Your task to perform on an android device: toggle notifications settings in the gmail app Image 0: 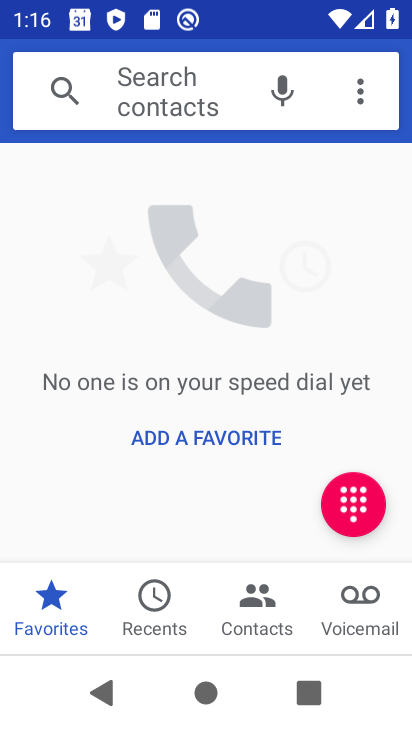
Step 0: press back button
Your task to perform on an android device: toggle notifications settings in the gmail app Image 1: 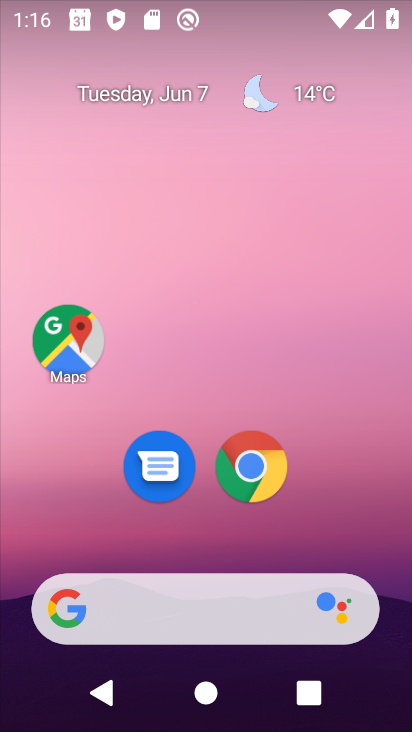
Step 1: drag from (236, 555) to (299, 0)
Your task to perform on an android device: toggle notifications settings in the gmail app Image 2: 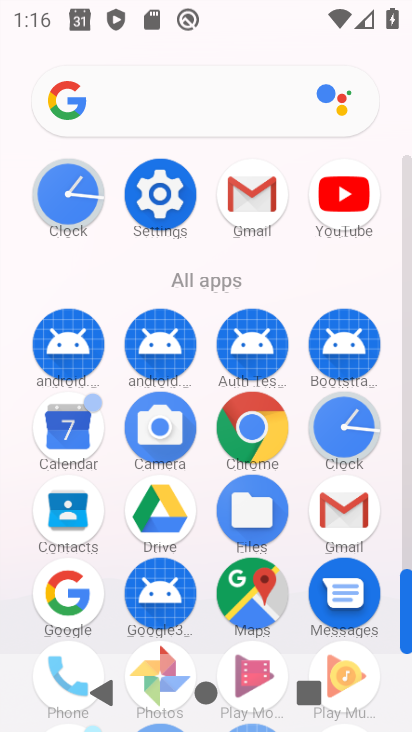
Step 2: click (247, 198)
Your task to perform on an android device: toggle notifications settings in the gmail app Image 3: 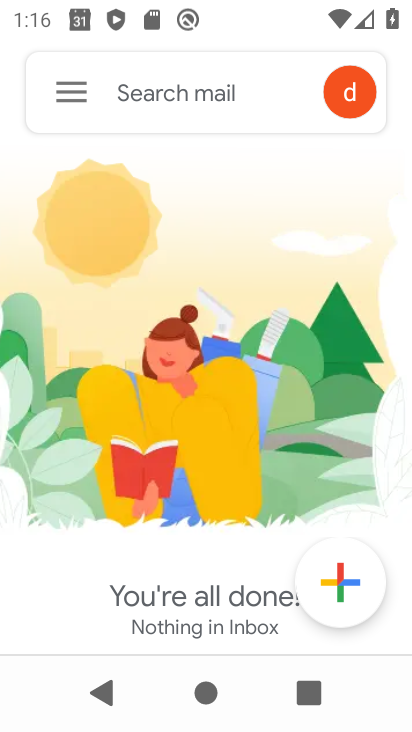
Step 3: click (67, 87)
Your task to perform on an android device: toggle notifications settings in the gmail app Image 4: 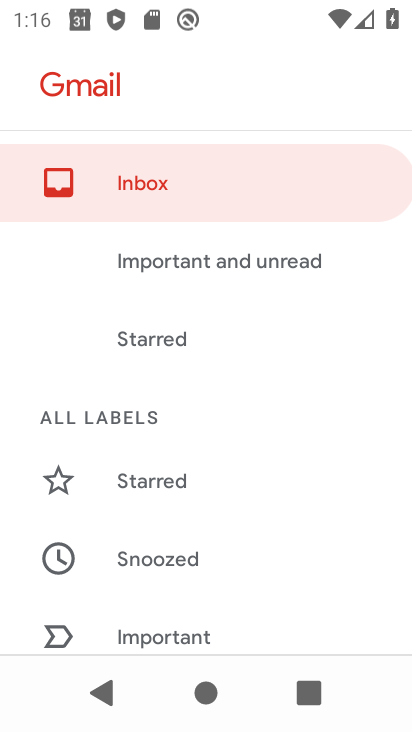
Step 4: drag from (225, 377) to (266, 82)
Your task to perform on an android device: toggle notifications settings in the gmail app Image 5: 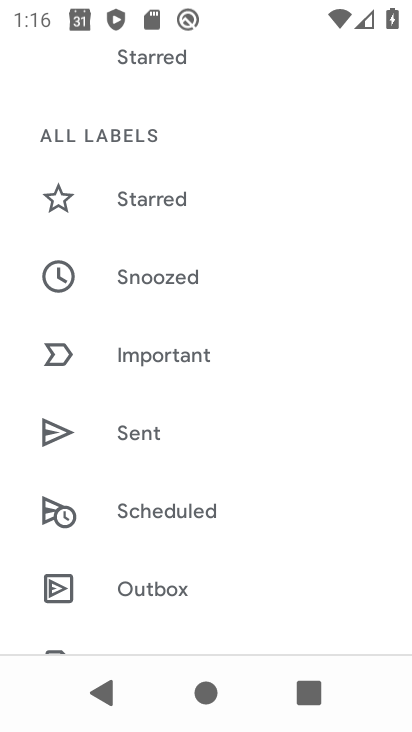
Step 5: drag from (190, 596) to (237, 40)
Your task to perform on an android device: toggle notifications settings in the gmail app Image 6: 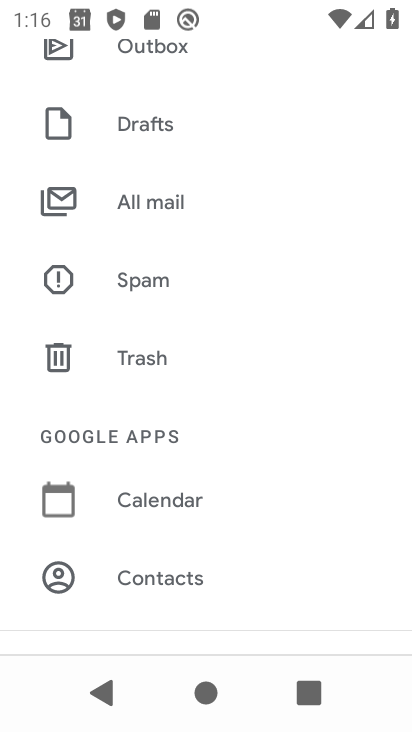
Step 6: drag from (162, 574) to (244, 63)
Your task to perform on an android device: toggle notifications settings in the gmail app Image 7: 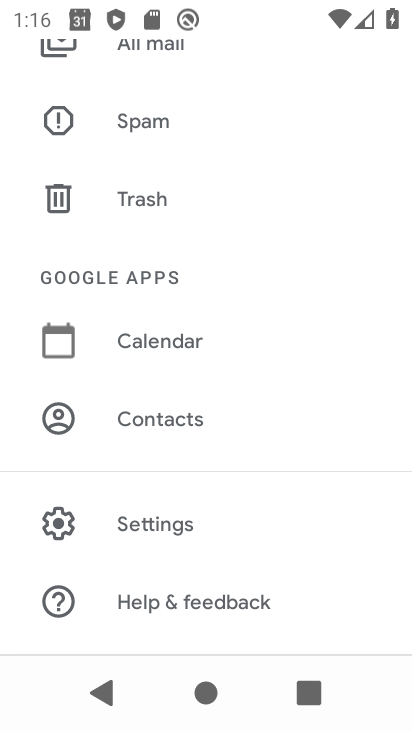
Step 7: click (143, 517)
Your task to perform on an android device: toggle notifications settings in the gmail app Image 8: 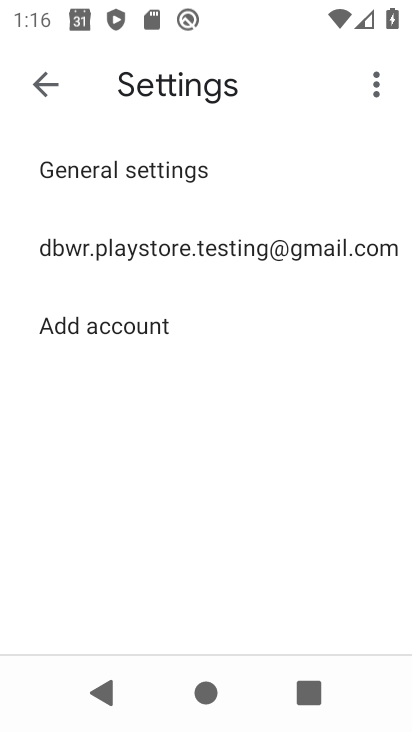
Step 8: click (134, 242)
Your task to perform on an android device: toggle notifications settings in the gmail app Image 9: 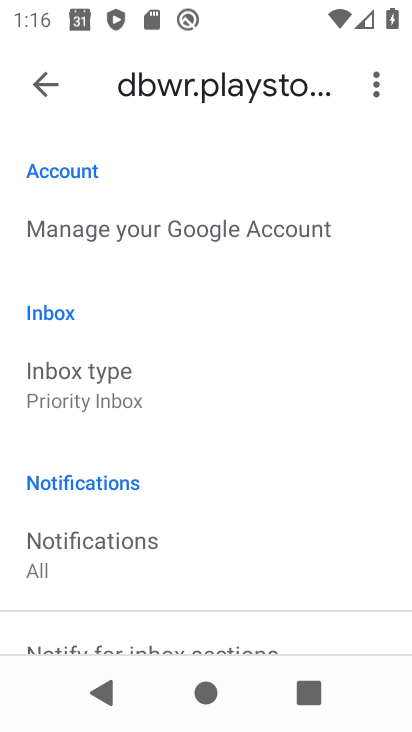
Step 9: drag from (78, 562) to (166, 118)
Your task to perform on an android device: toggle notifications settings in the gmail app Image 10: 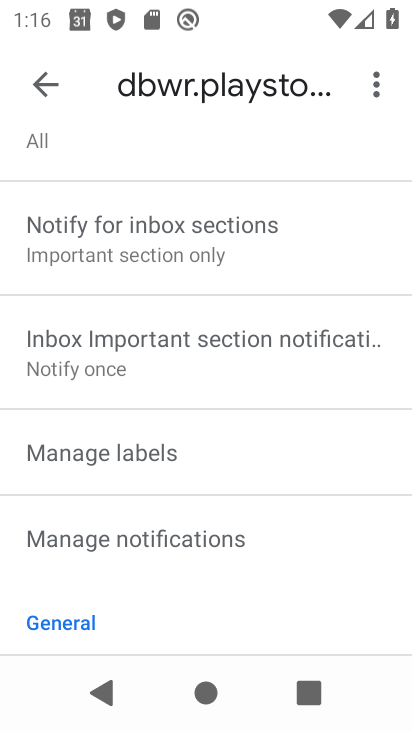
Step 10: click (138, 539)
Your task to perform on an android device: toggle notifications settings in the gmail app Image 11: 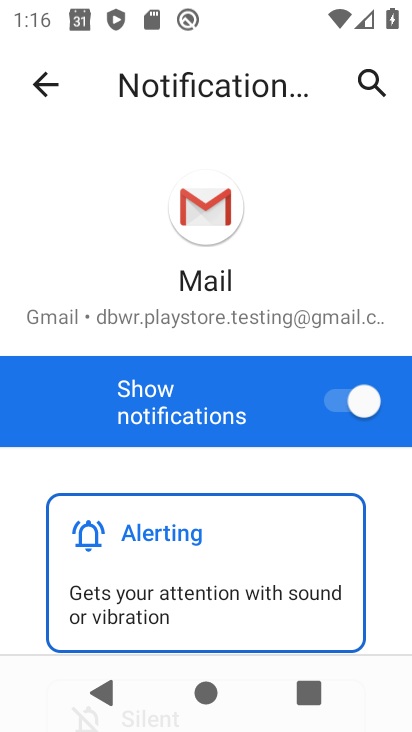
Step 11: click (354, 397)
Your task to perform on an android device: toggle notifications settings in the gmail app Image 12: 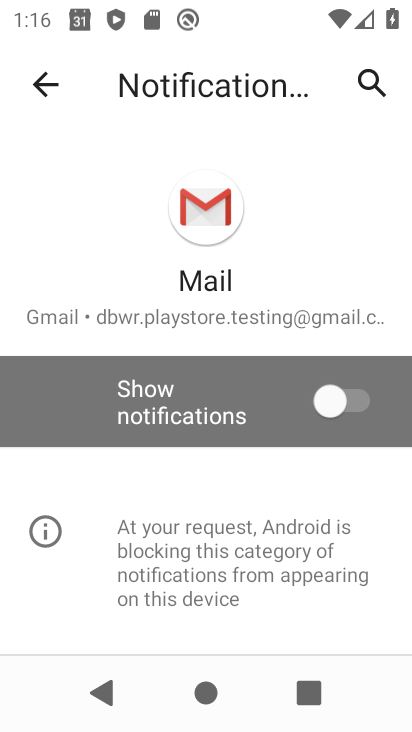
Step 12: task complete